Your task to perform on an android device: open app "Speedtest by Ookla" (install if not already installed) Image 0: 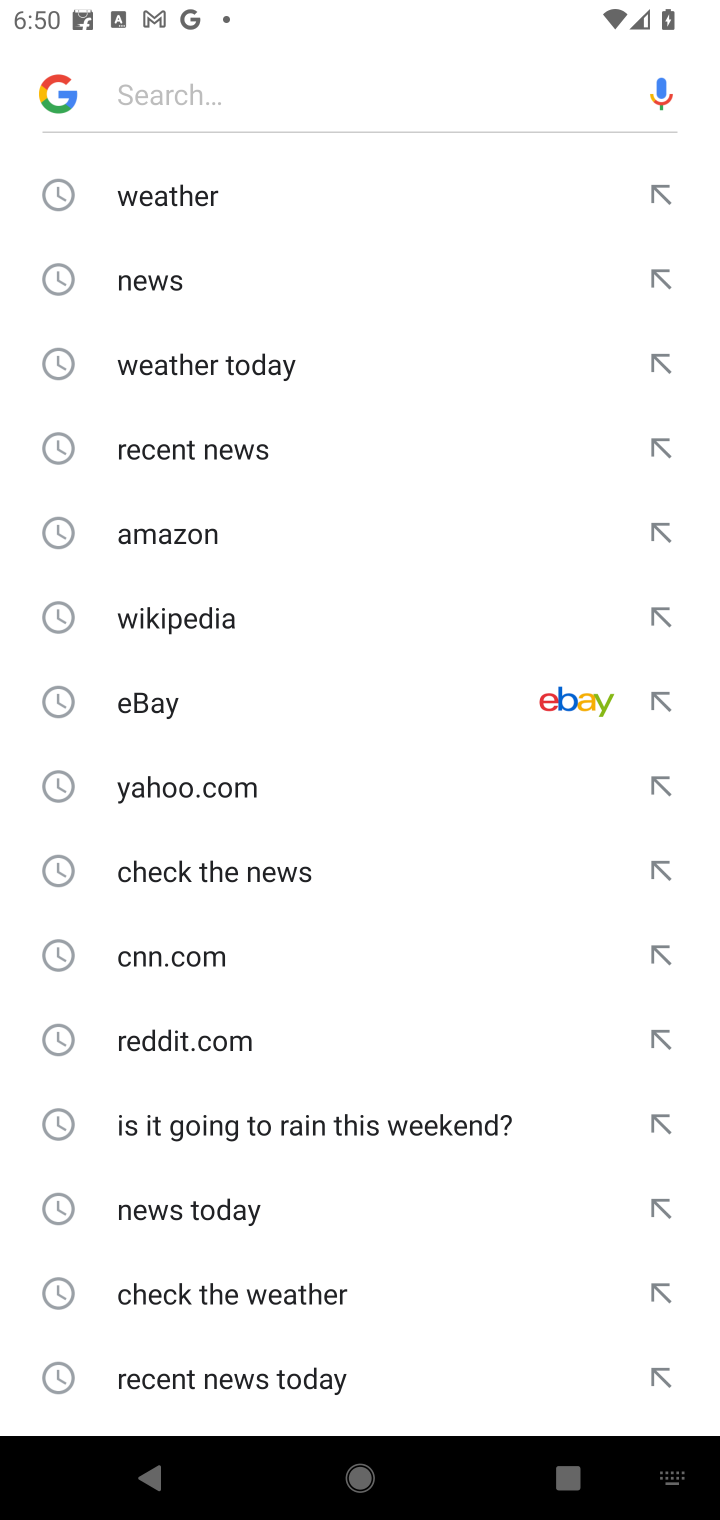
Step 0: press home button
Your task to perform on an android device: open app "Speedtest by Ookla" (install if not already installed) Image 1: 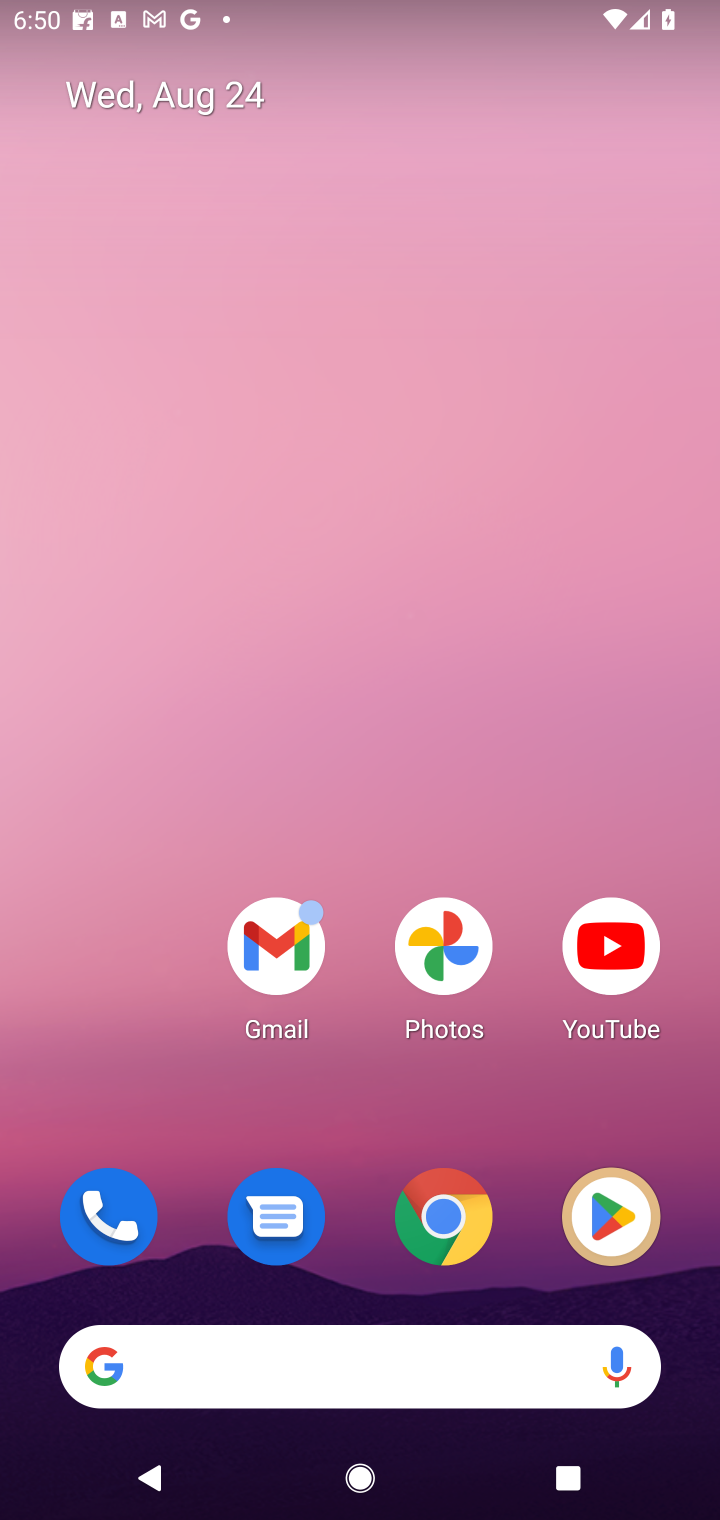
Step 1: click (598, 1233)
Your task to perform on an android device: open app "Speedtest by Ookla" (install if not already installed) Image 2: 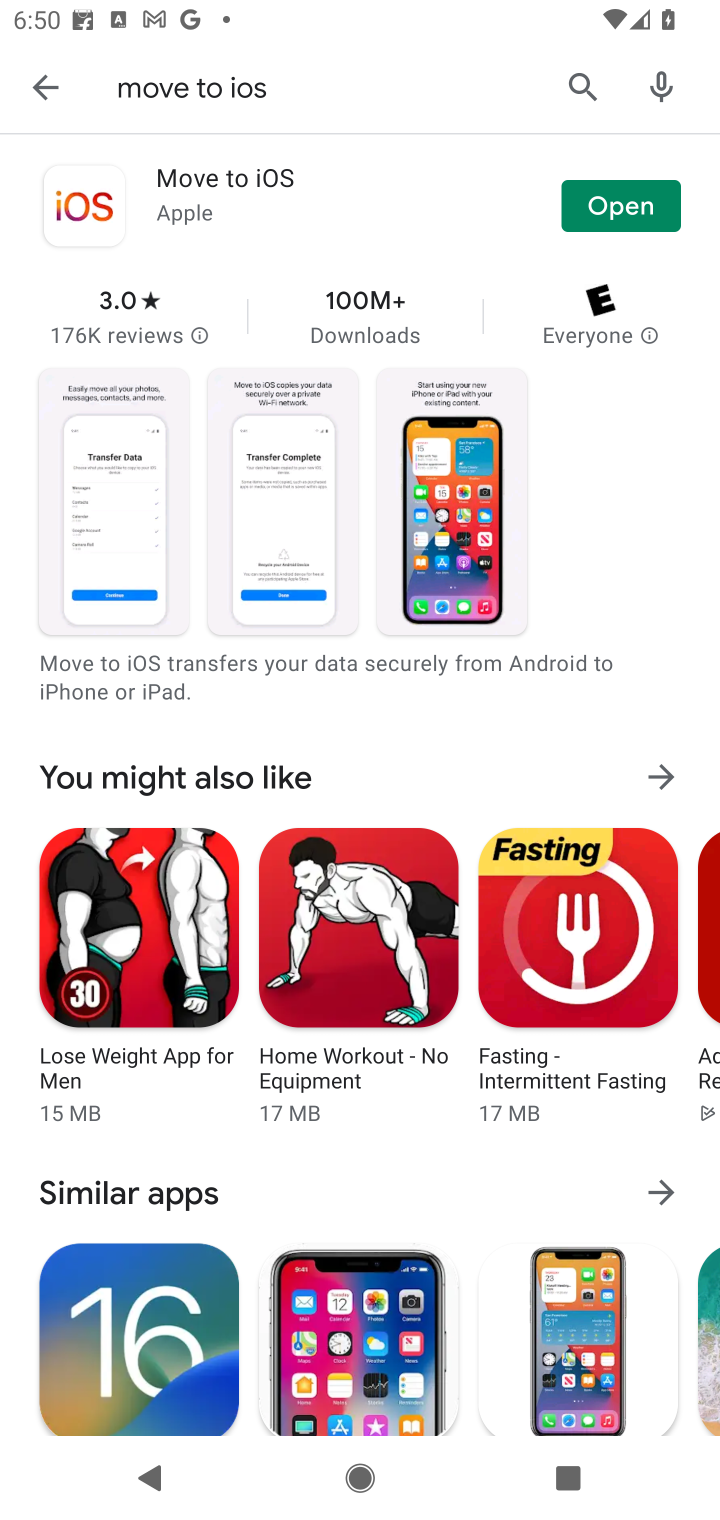
Step 2: click (575, 77)
Your task to perform on an android device: open app "Speedtest by Ookla" (install if not already installed) Image 3: 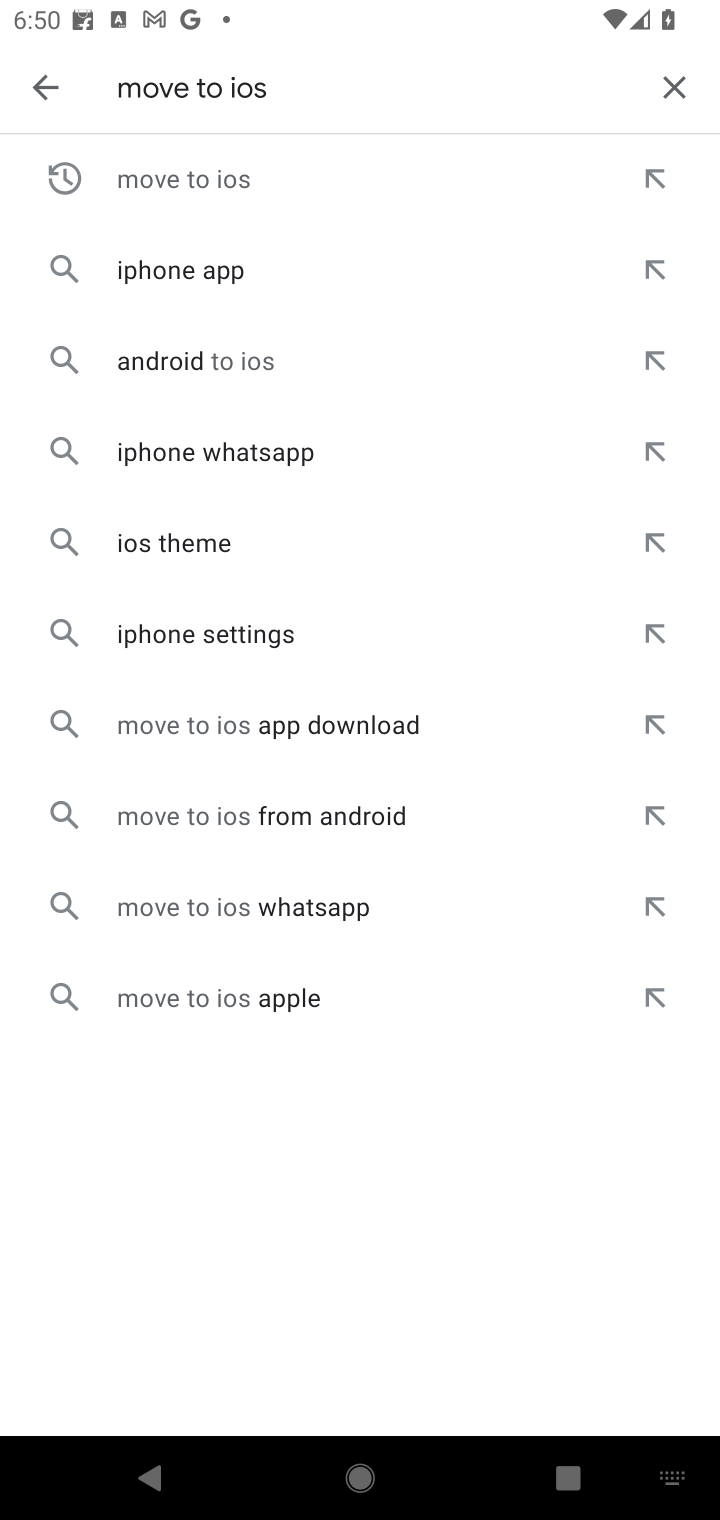
Step 3: click (665, 89)
Your task to perform on an android device: open app "Speedtest by Ookla" (install if not already installed) Image 4: 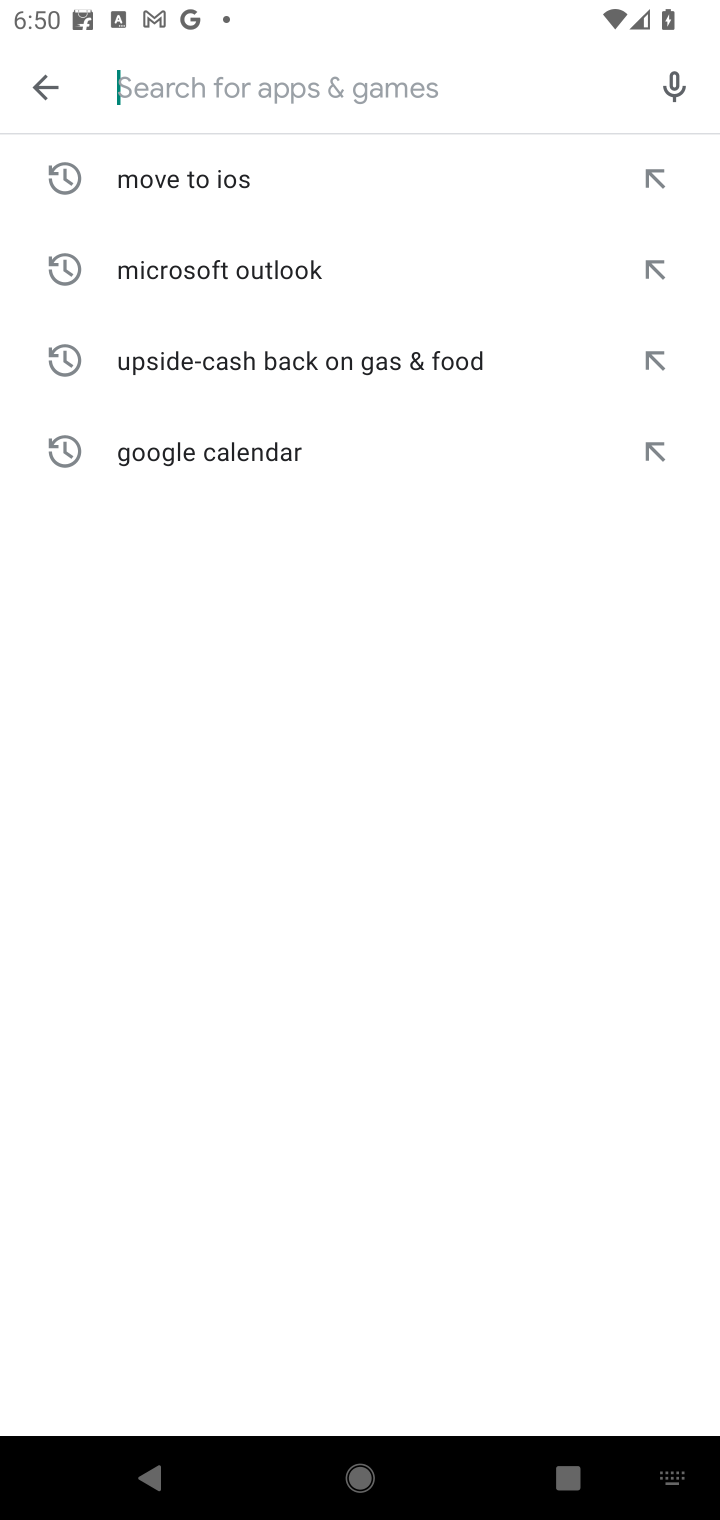
Step 4: type "Speedtest by Ookla"
Your task to perform on an android device: open app "Speedtest by Ookla" (install if not already installed) Image 5: 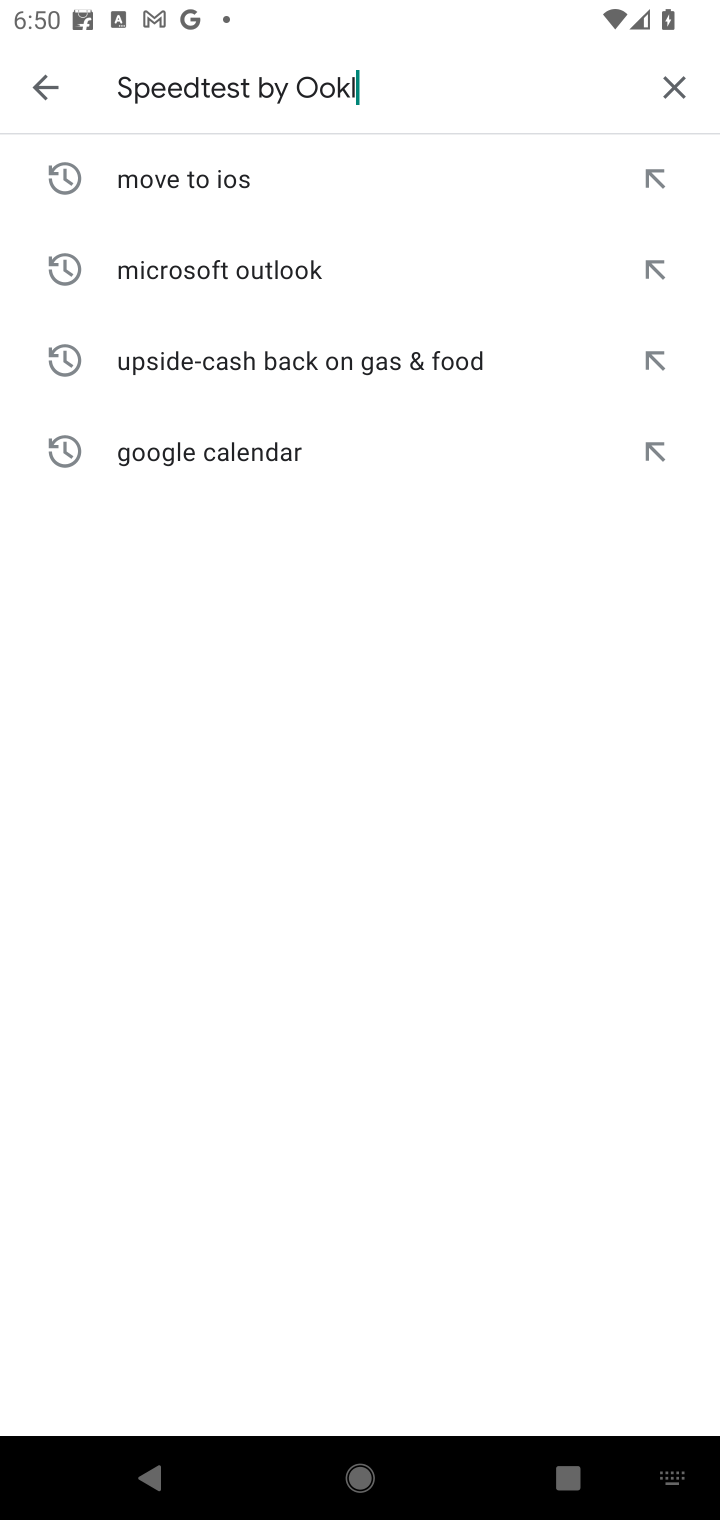
Step 5: type ""
Your task to perform on an android device: open app "Speedtest by Ookla" (install if not already installed) Image 6: 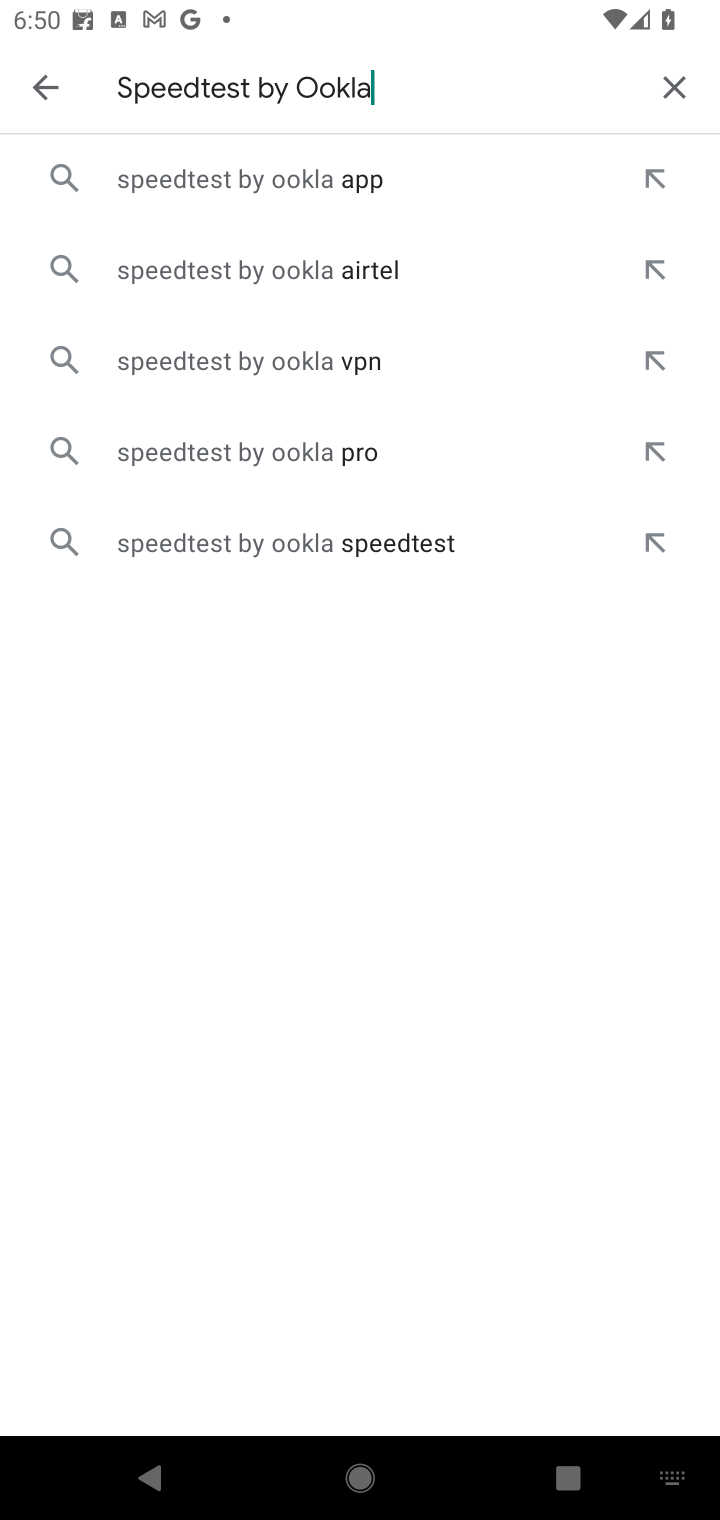
Step 6: click (373, 192)
Your task to perform on an android device: open app "Speedtest by Ookla" (install if not already installed) Image 7: 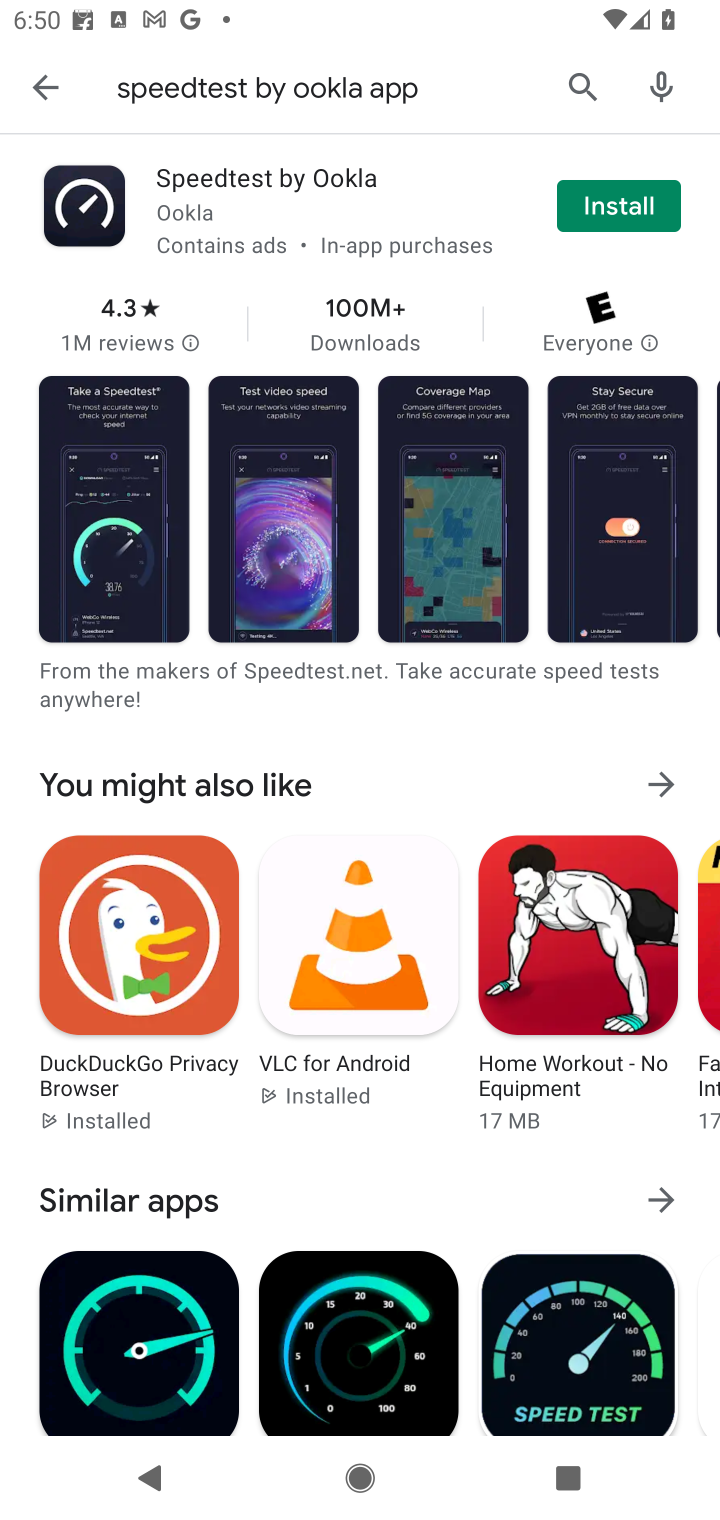
Step 7: click (616, 211)
Your task to perform on an android device: open app "Speedtest by Ookla" (install if not already installed) Image 8: 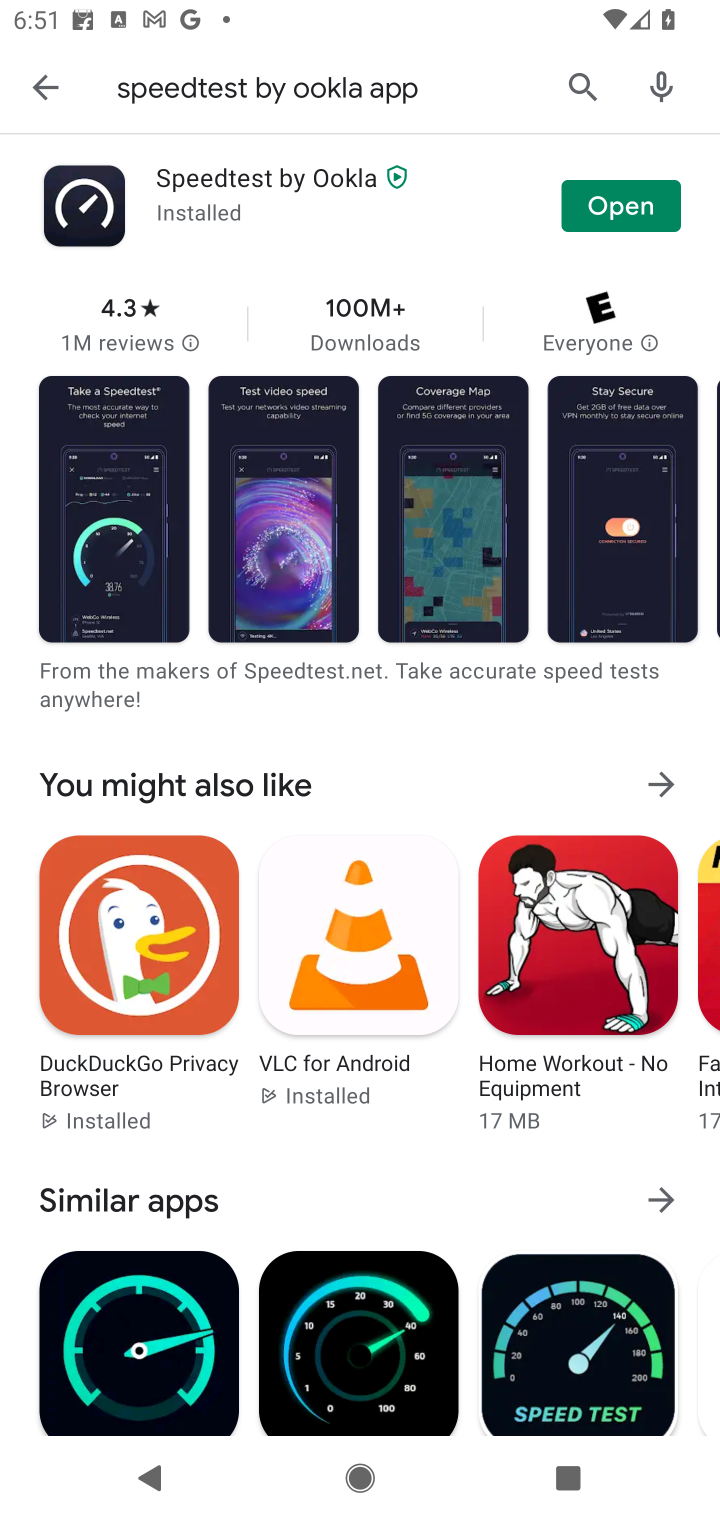
Step 8: click (624, 218)
Your task to perform on an android device: open app "Speedtest by Ookla" (install if not already installed) Image 9: 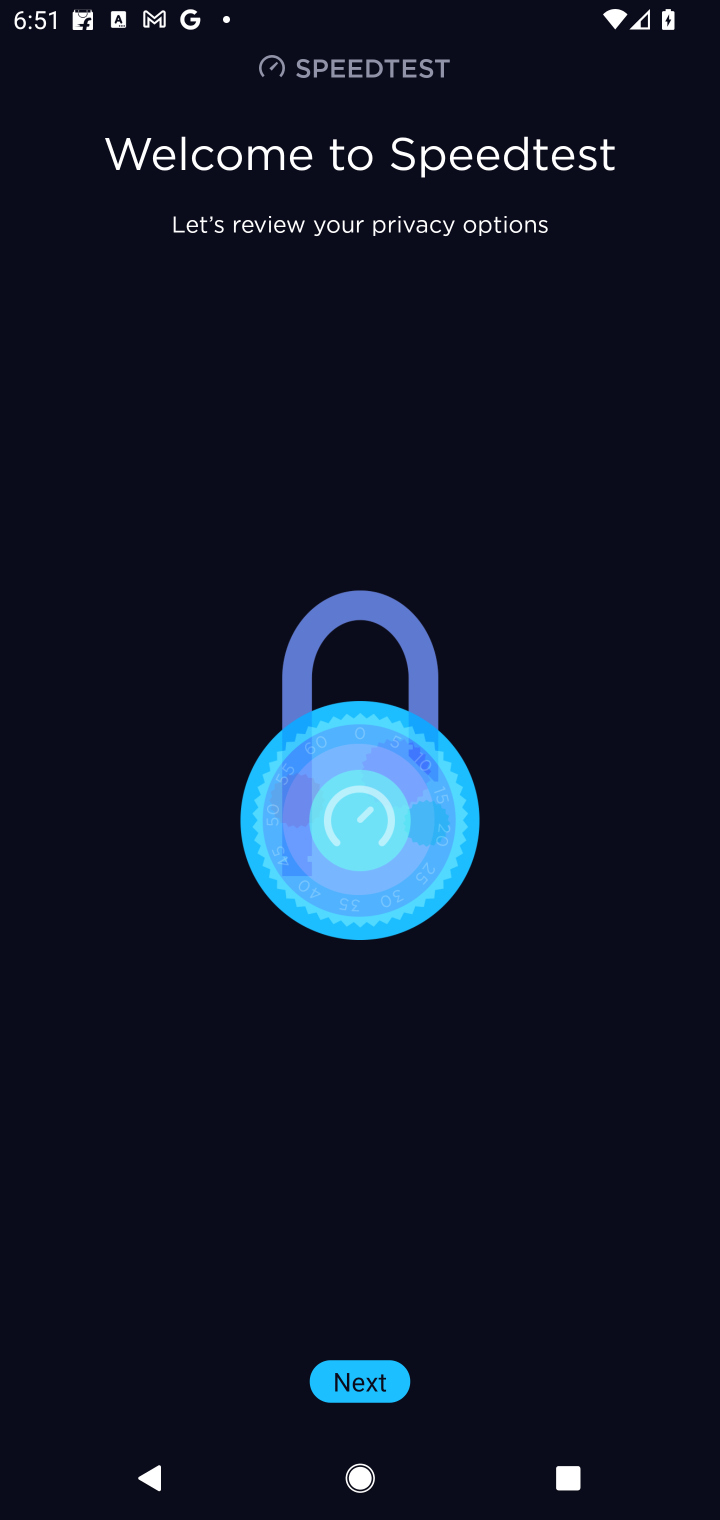
Step 9: task complete